Your task to perform on an android device: clear history in the chrome app Image 0: 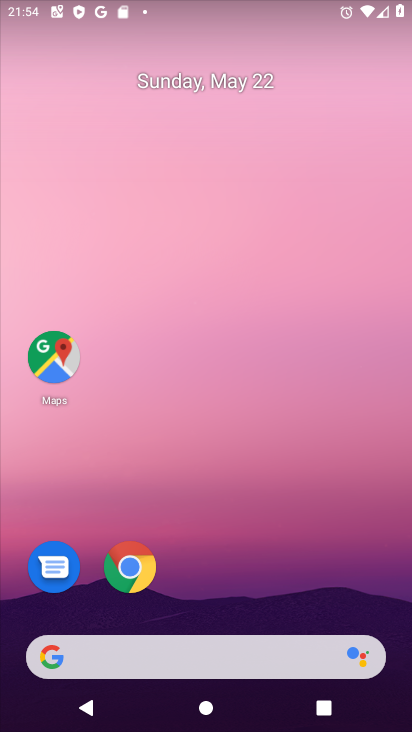
Step 0: click (124, 565)
Your task to perform on an android device: clear history in the chrome app Image 1: 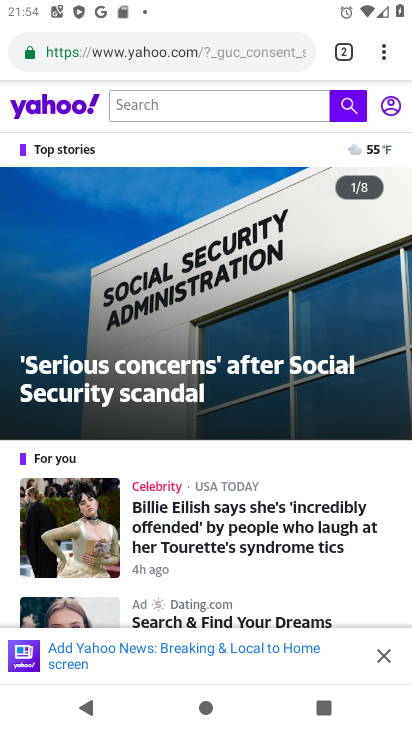
Step 1: click (377, 60)
Your task to perform on an android device: clear history in the chrome app Image 2: 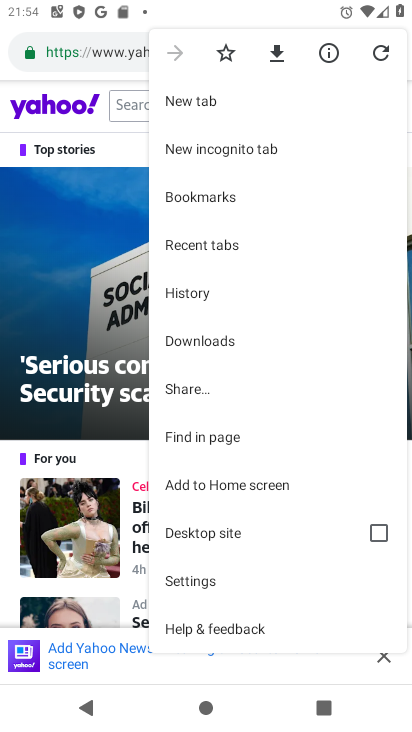
Step 2: click (217, 299)
Your task to perform on an android device: clear history in the chrome app Image 3: 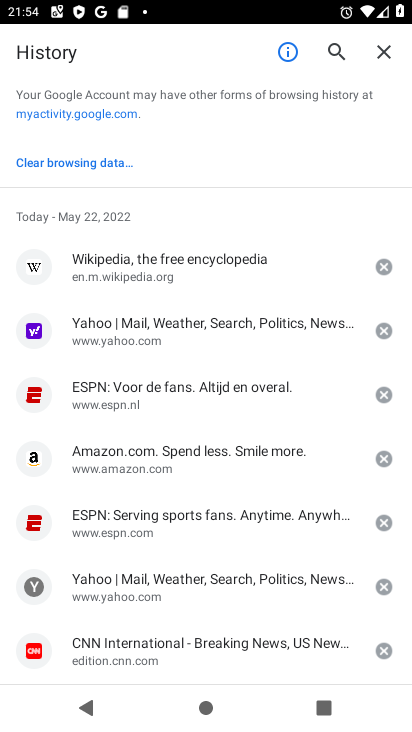
Step 3: click (83, 164)
Your task to perform on an android device: clear history in the chrome app Image 4: 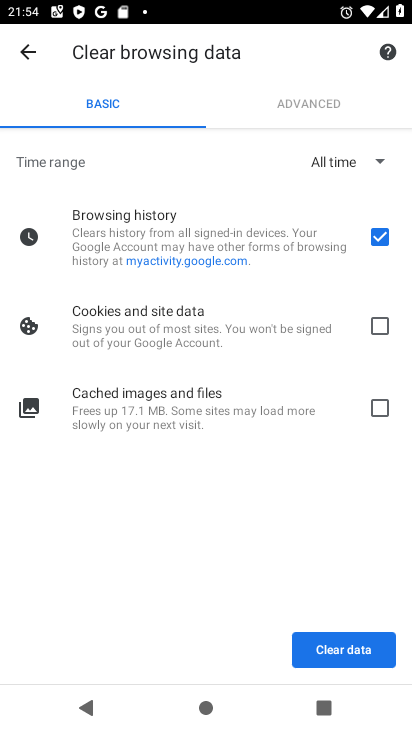
Step 4: click (332, 644)
Your task to perform on an android device: clear history in the chrome app Image 5: 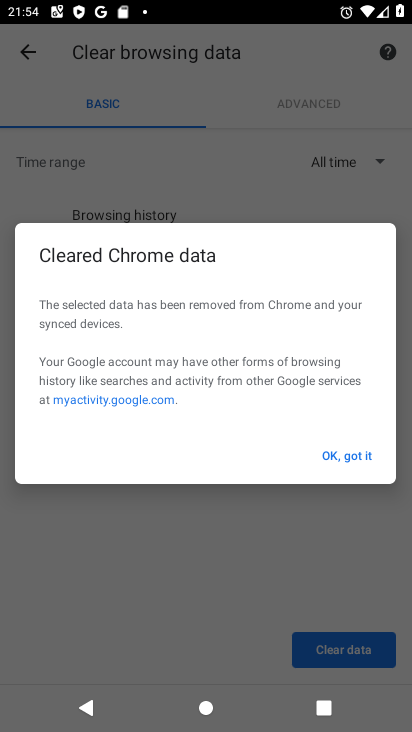
Step 5: click (357, 456)
Your task to perform on an android device: clear history in the chrome app Image 6: 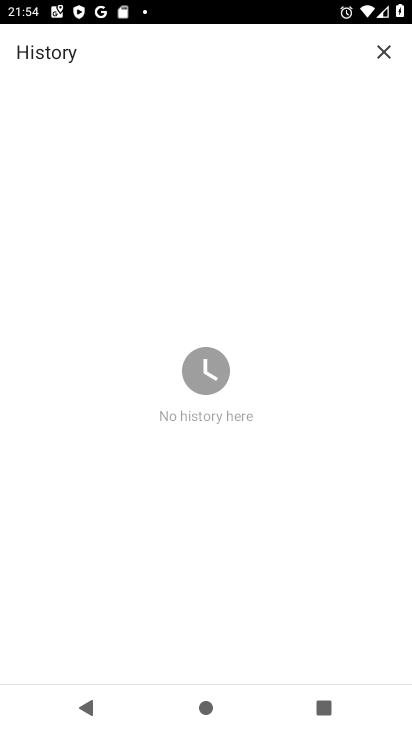
Step 6: task complete